Your task to perform on an android device: Open the camera Image 0: 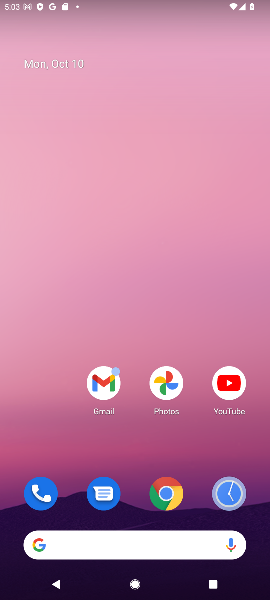
Step 0: drag from (137, 509) to (140, 85)
Your task to perform on an android device: Open the camera Image 1: 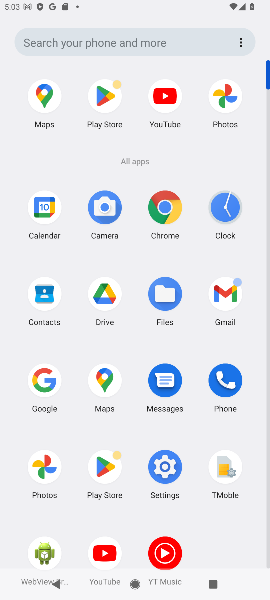
Step 1: click (102, 229)
Your task to perform on an android device: Open the camera Image 2: 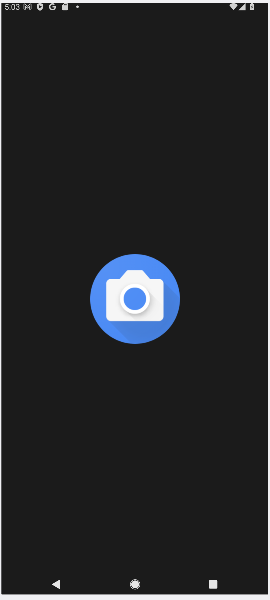
Step 2: task complete